Your task to perform on an android device: Search for pizza restaurants on Maps Image 0: 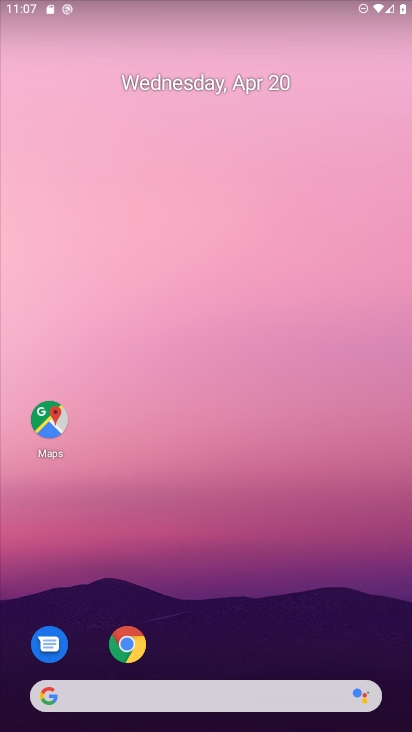
Step 0: drag from (315, 631) to (264, 108)
Your task to perform on an android device: Search for pizza restaurants on Maps Image 1: 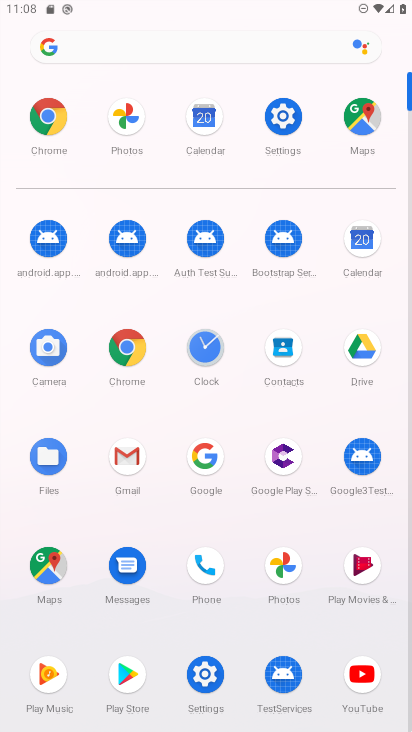
Step 1: click (39, 571)
Your task to perform on an android device: Search for pizza restaurants on Maps Image 2: 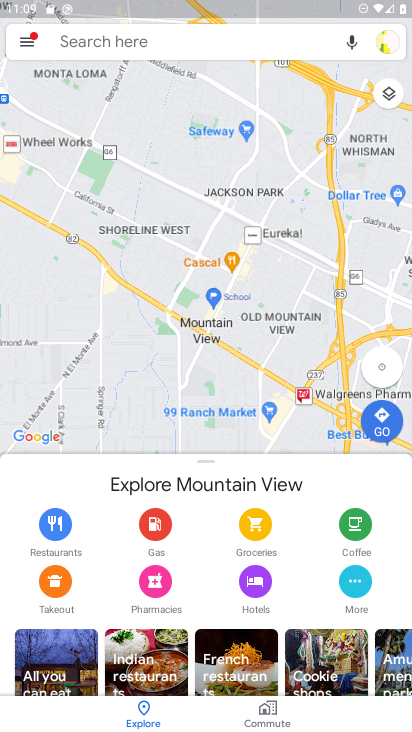
Step 2: click (231, 49)
Your task to perform on an android device: Search for pizza restaurants on Maps Image 3: 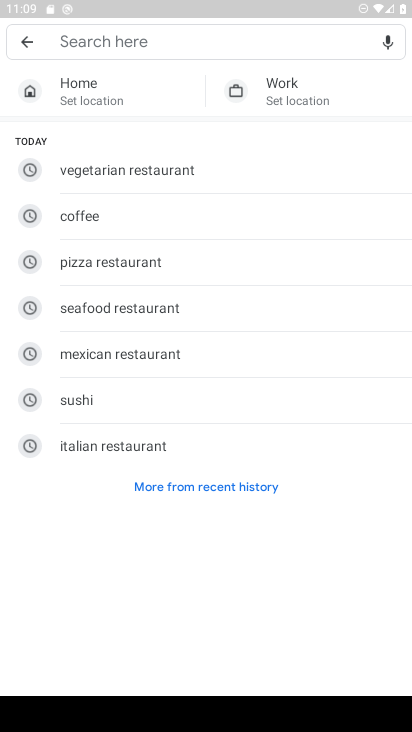
Step 3: click (161, 270)
Your task to perform on an android device: Search for pizza restaurants on Maps Image 4: 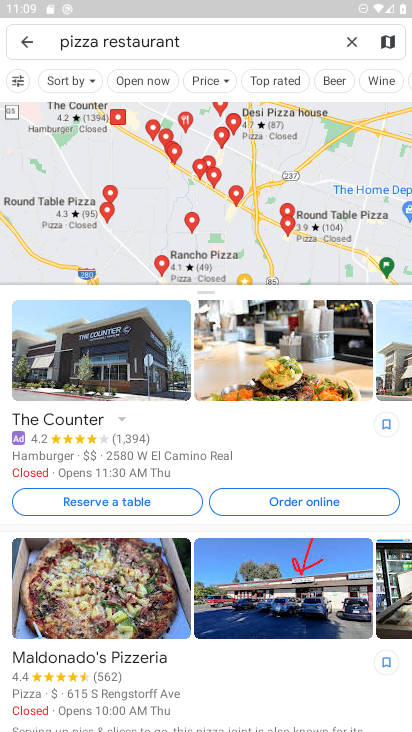
Step 4: task complete